Your task to perform on an android device: open a new tab in the chrome app Image 0: 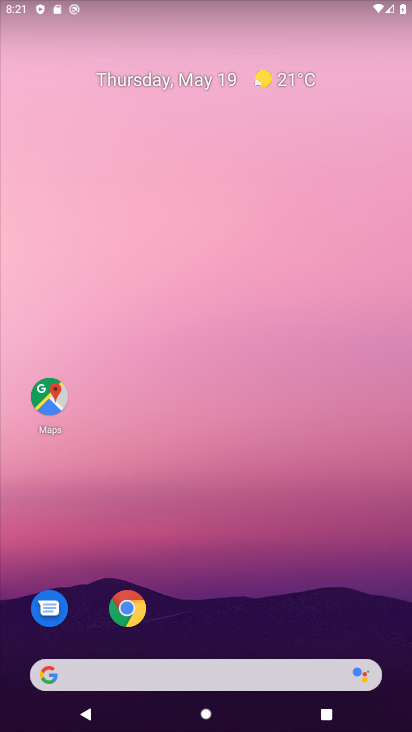
Step 0: click (130, 611)
Your task to perform on an android device: open a new tab in the chrome app Image 1: 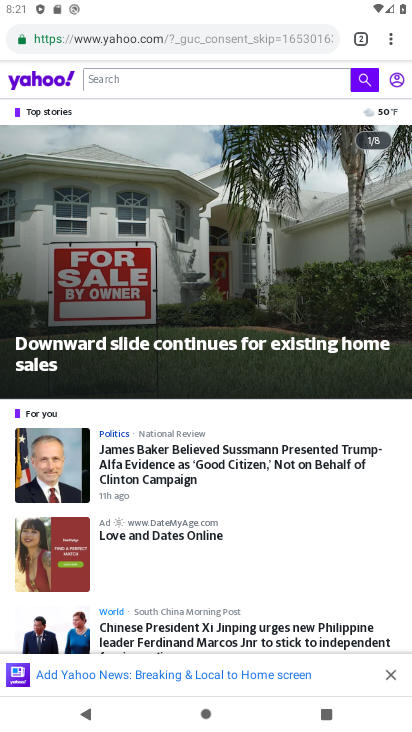
Step 1: click (390, 37)
Your task to perform on an android device: open a new tab in the chrome app Image 2: 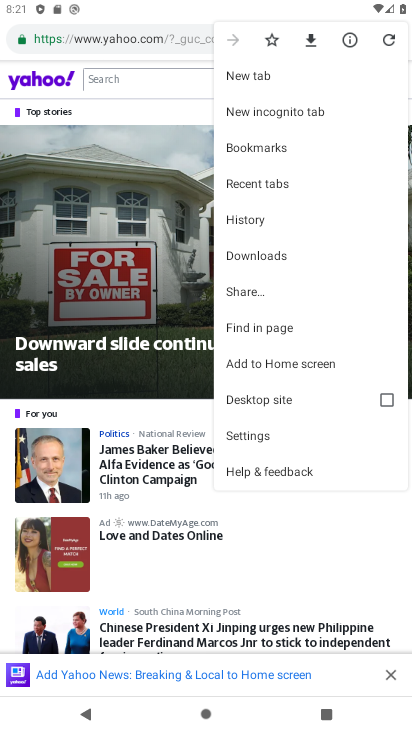
Step 2: click (254, 68)
Your task to perform on an android device: open a new tab in the chrome app Image 3: 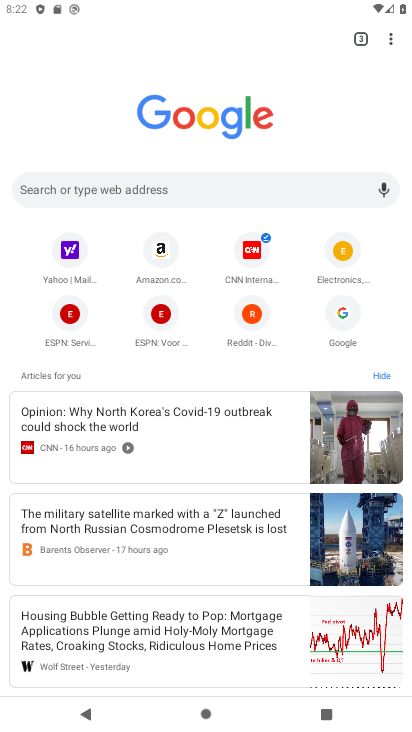
Step 3: task complete